Your task to perform on an android device: check storage Image 0: 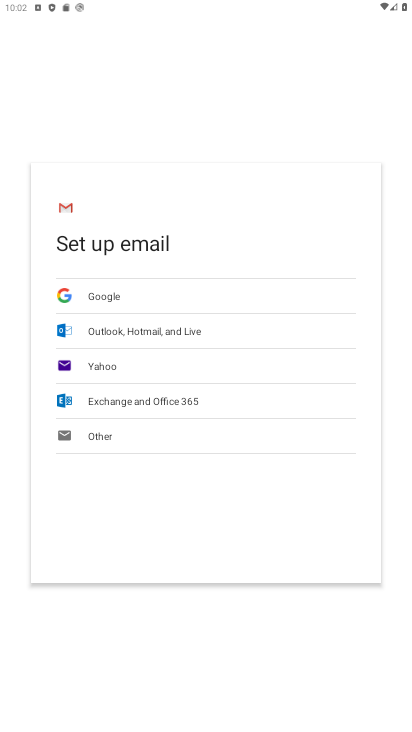
Step 0: press home button
Your task to perform on an android device: check storage Image 1: 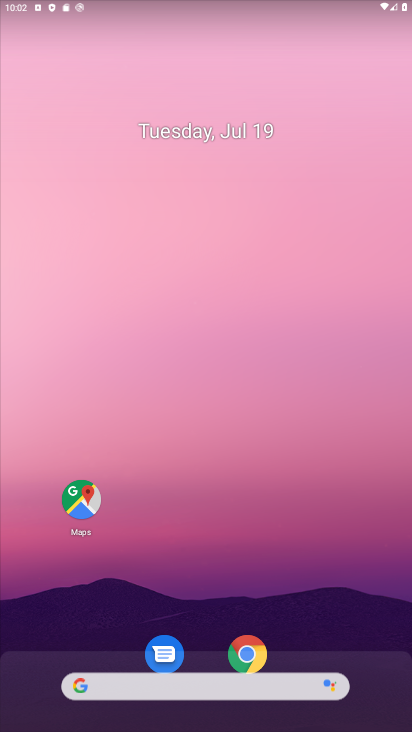
Step 1: drag from (212, 627) to (234, 148)
Your task to perform on an android device: check storage Image 2: 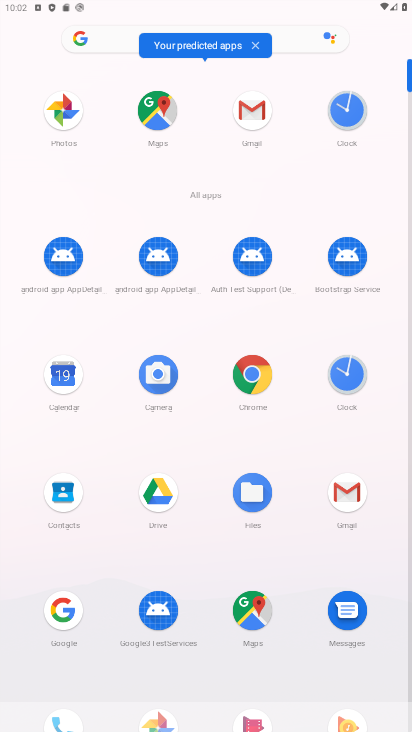
Step 2: drag from (191, 642) to (218, 174)
Your task to perform on an android device: check storage Image 3: 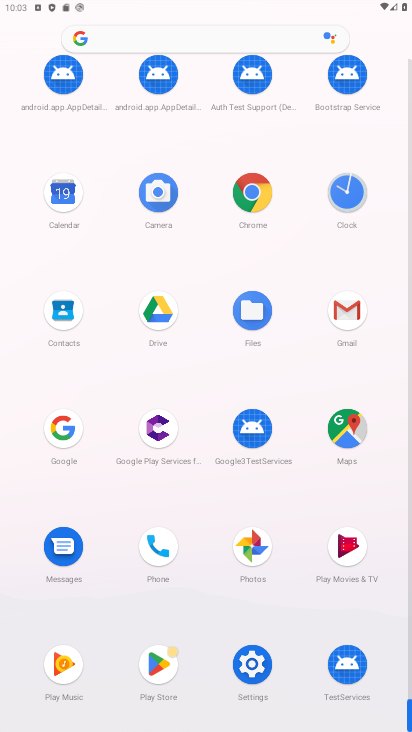
Step 3: click (258, 652)
Your task to perform on an android device: check storage Image 4: 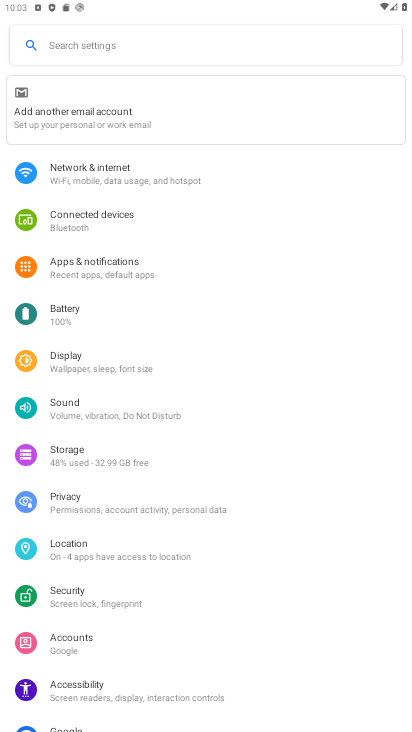
Step 4: click (111, 328)
Your task to perform on an android device: check storage Image 5: 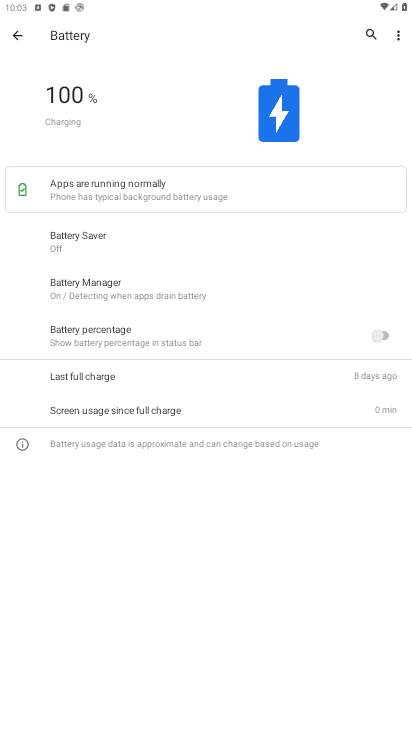
Step 5: click (401, 35)
Your task to perform on an android device: check storage Image 6: 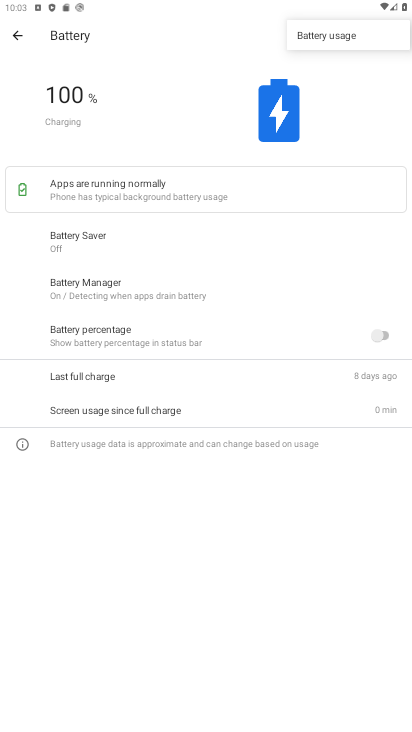
Step 6: task complete